Your task to perform on an android device: clear history in the chrome app Image 0: 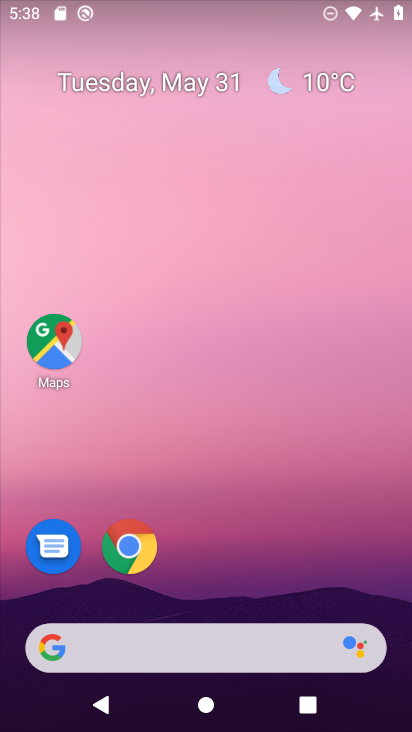
Step 0: click (127, 551)
Your task to perform on an android device: clear history in the chrome app Image 1: 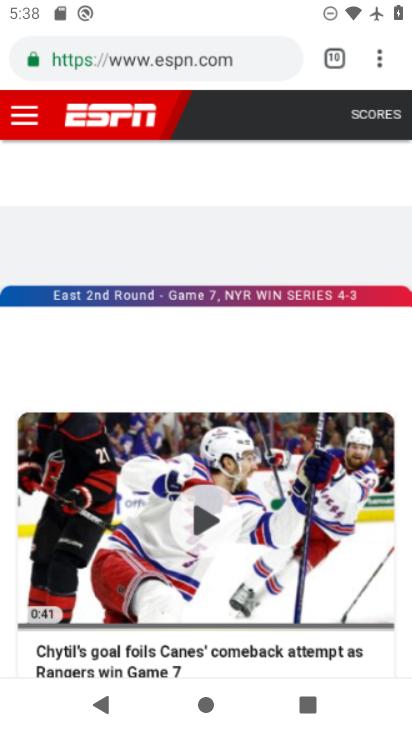
Step 1: click (374, 65)
Your task to perform on an android device: clear history in the chrome app Image 2: 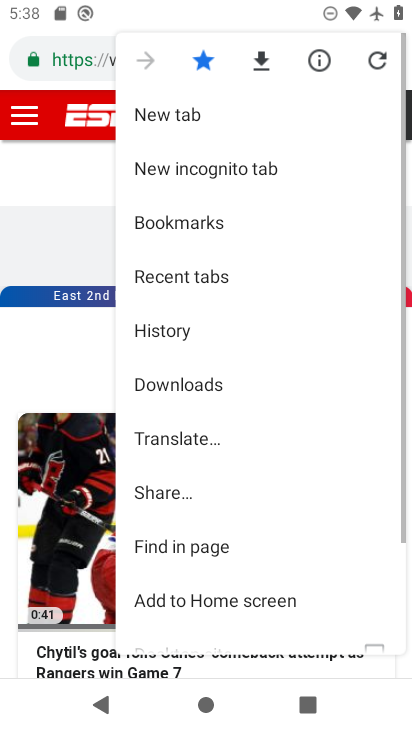
Step 2: click (175, 311)
Your task to perform on an android device: clear history in the chrome app Image 3: 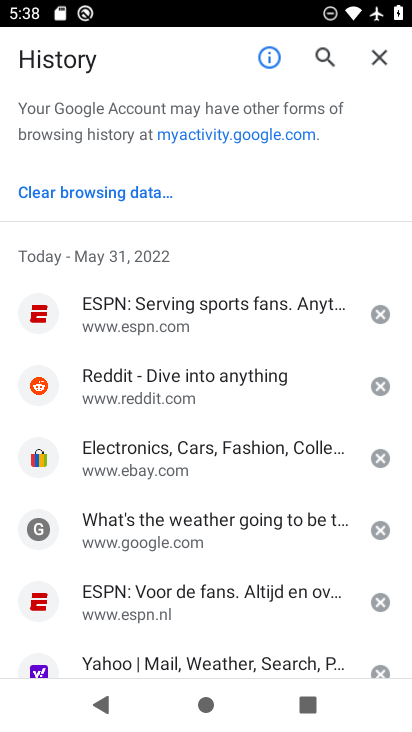
Step 3: click (120, 190)
Your task to perform on an android device: clear history in the chrome app Image 4: 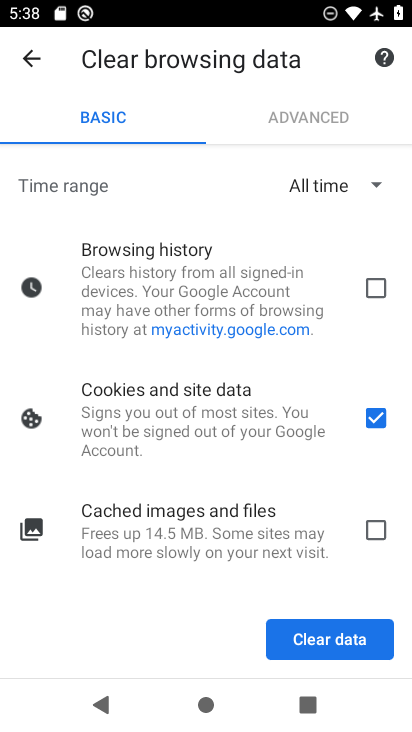
Step 4: click (363, 288)
Your task to perform on an android device: clear history in the chrome app Image 5: 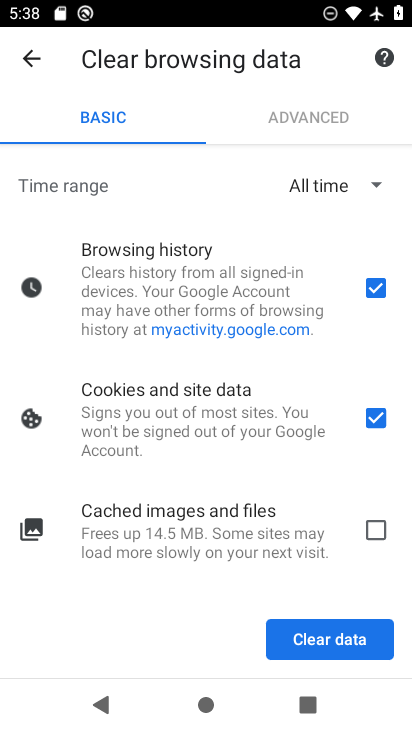
Step 5: click (385, 523)
Your task to perform on an android device: clear history in the chrome app Image 6: 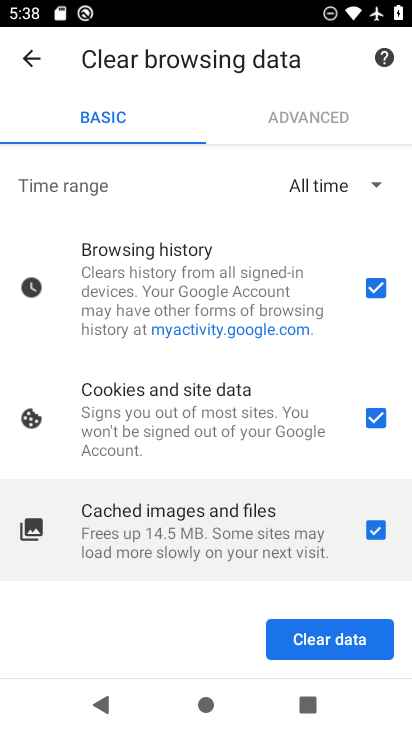
Step 6: click (333, 653)
Your task to perform on an android device: clear history in the chrome app Image 7: 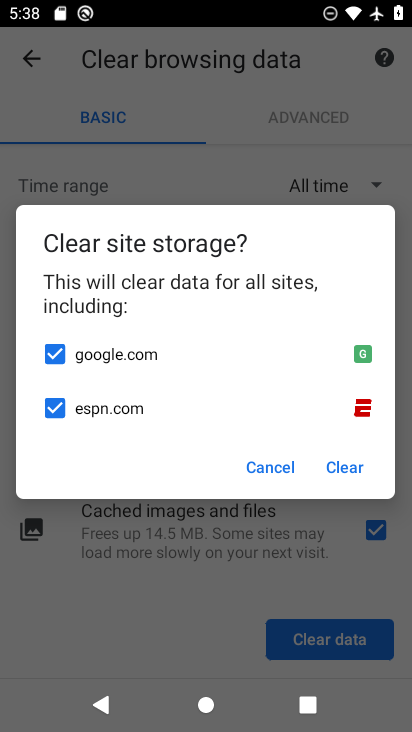
Step 7: click (342, 455)
Your task to perform on an android device: clear history in the chrome app Image 8: 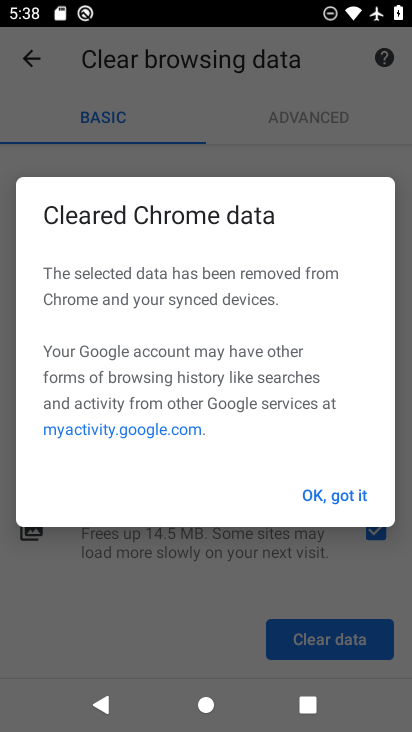
Step 8: click (320, 482)
Your task to perform on an android device: clear history in the chrome app Image 9: 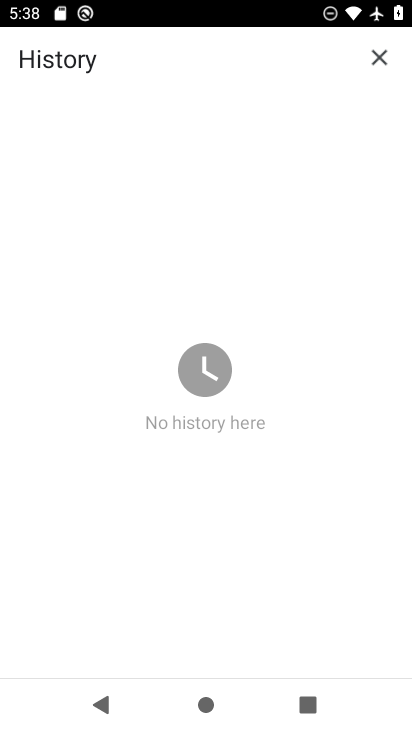
Step 9: task complete